Your task to perform on an android device: Open Chrome and go to the settings page Image 0: 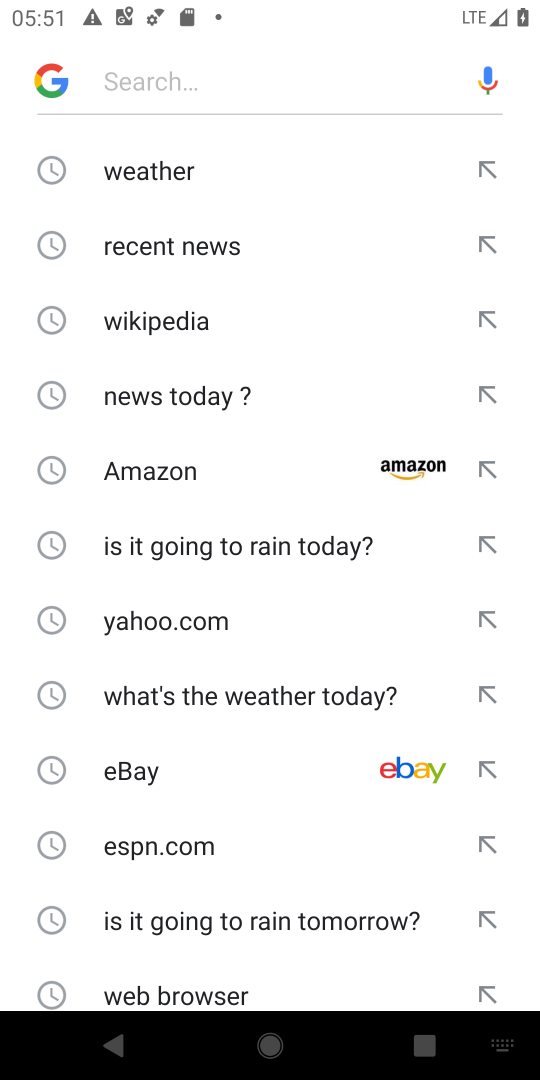
Step 0: press home button
Your task to perform on an android device: Open Chrome and go to the settings page Image 1: 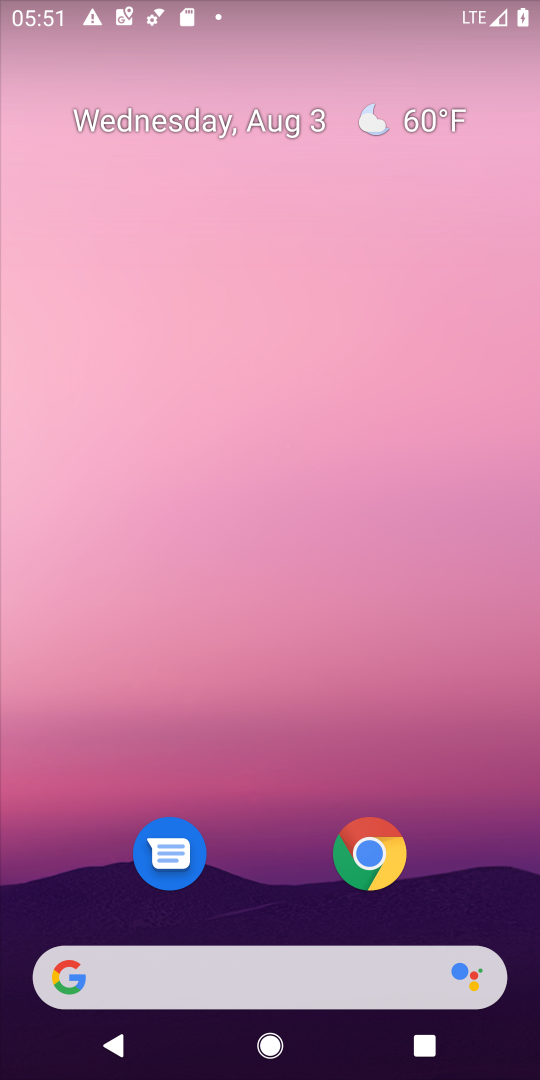
Step 1: click (379, 858)
Your task to perform on an android device: Open Chrome and go to the settings page Image 2: 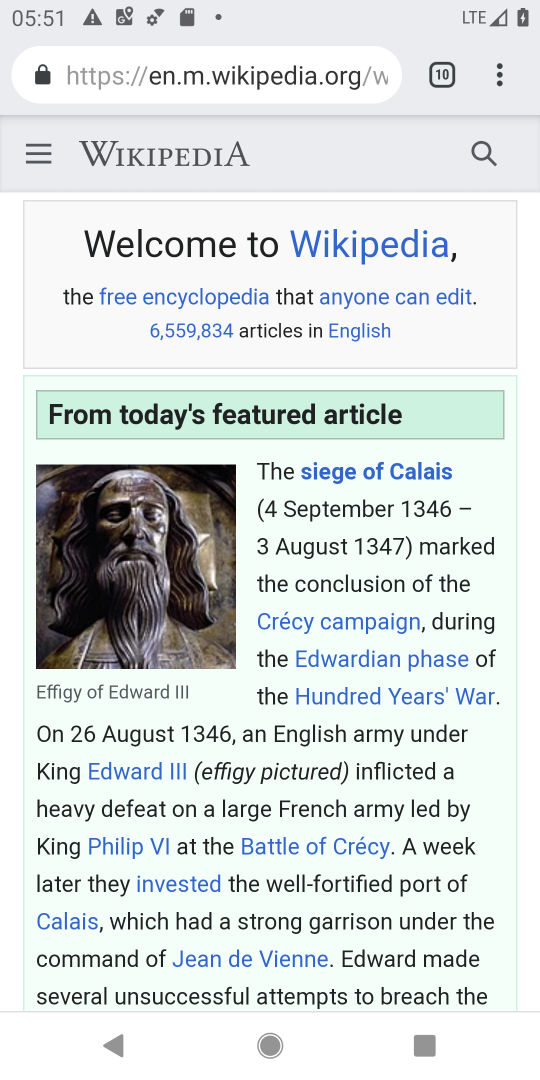
Step 2: click (498, 77)
Your task to perform on an android device: Open Chrome and go to the settings page Image 3: 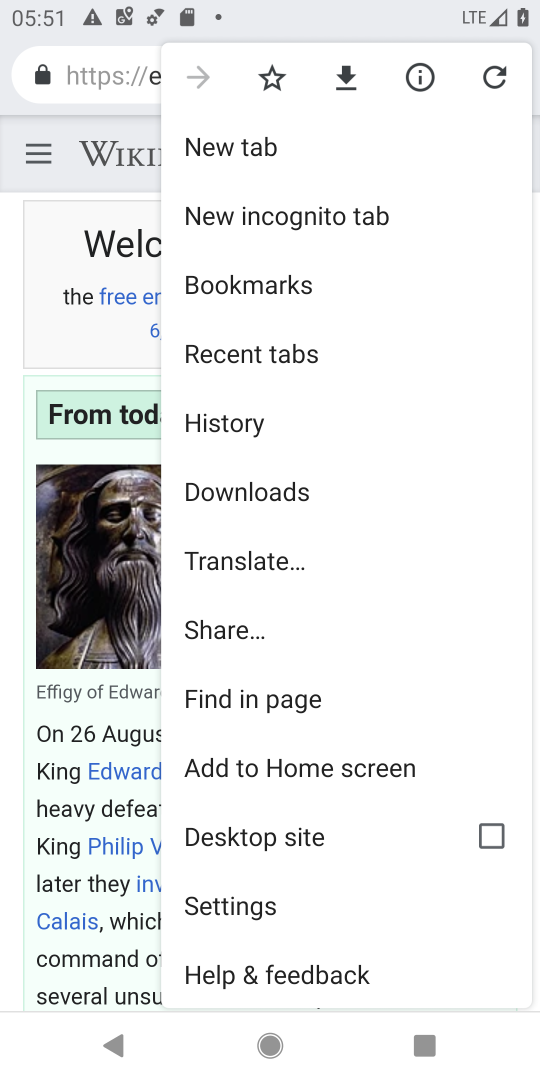
Step 3: click (235, 900)
Your task to perform on an android device: Open Chrome and go to the settings page Image 4: 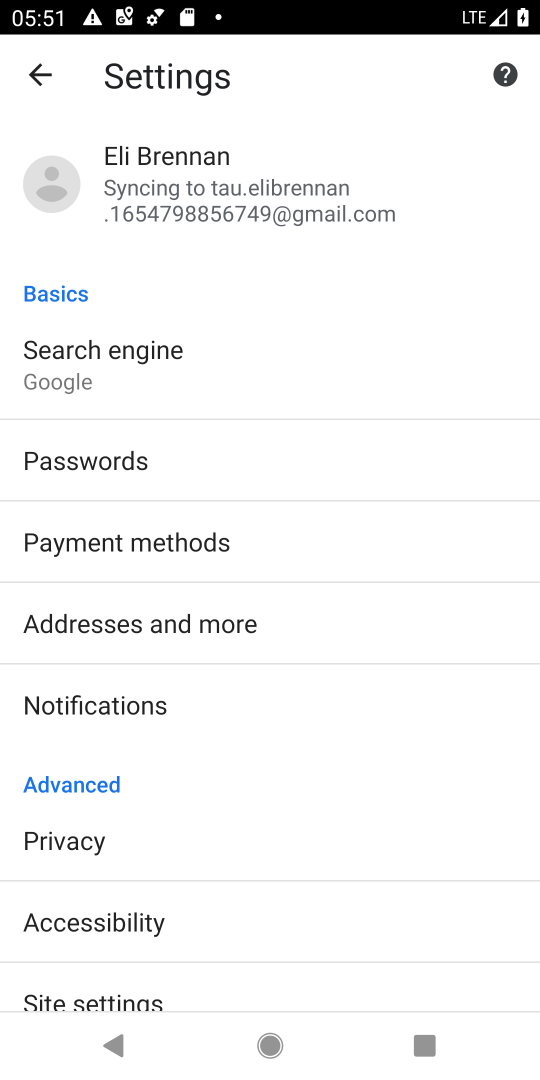
Step 4: task complete